Your task to perform on an android device: open the mobile data screen to see how much data has been used Image 0: 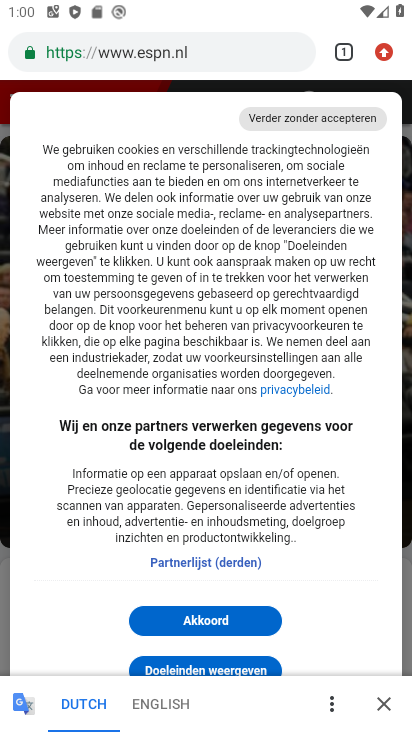
Step 0: press home button
Your task to perform on an android device: open the mobile data screen to see how much data has been used Image 1: 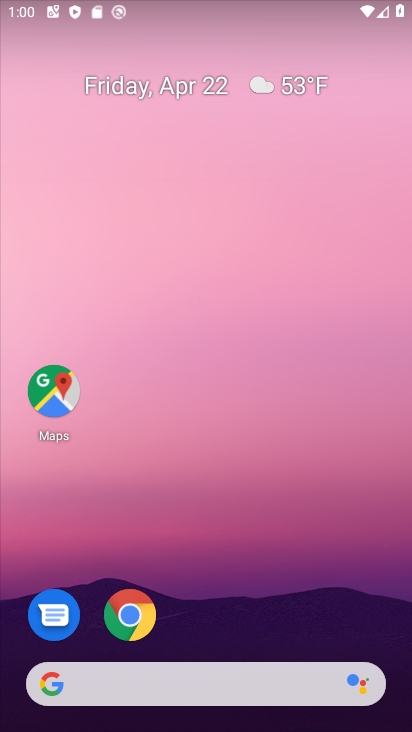
Step 1: drag from (332, 499) to (300, 11)
Your task to perform on an android device: open the mobile data screen to see how much data has been used Image 2: 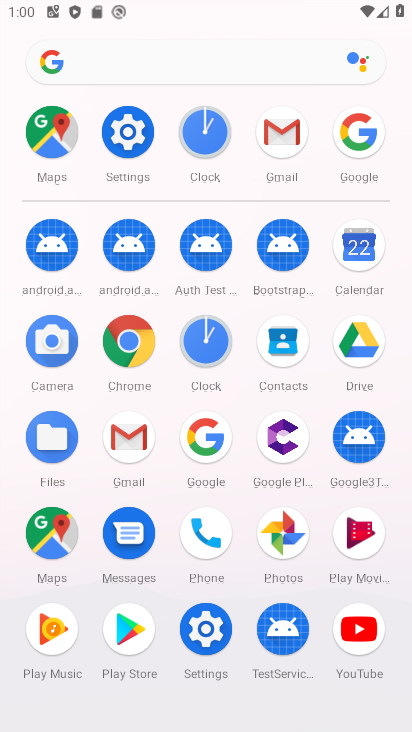
Step 2: click (133, 128)
Your task to perform on an android device: open the mobile data screen to see how much data has been used Image 3: 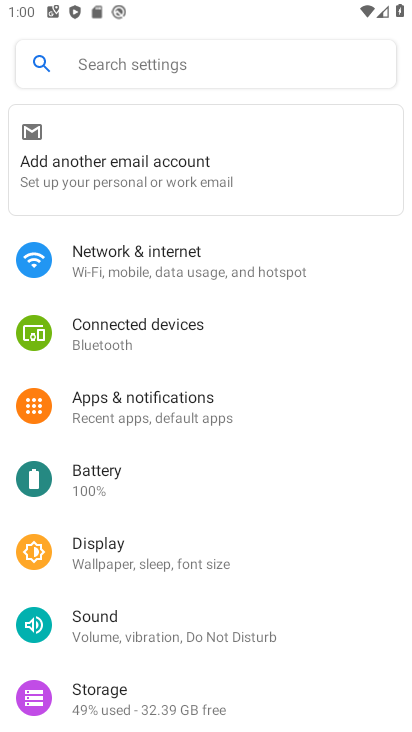
Step 3: click (185, 257)
Your task to perform on an android device: open the mobile data screen to see how much data has been used Image 4: 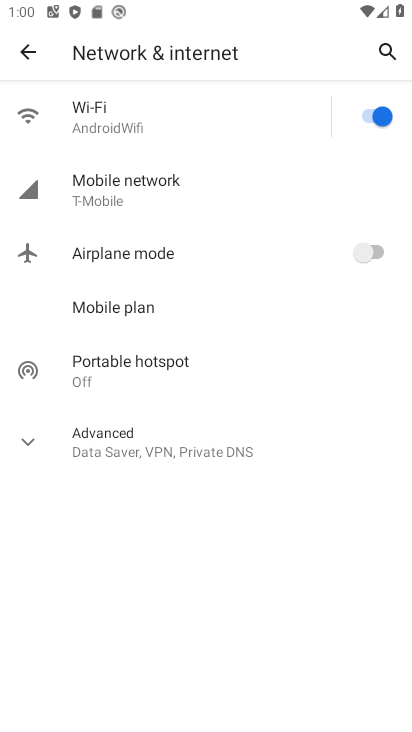
Step 4: click (109, 200)
Your task to perform on an android device: open the mobile data screen to see how much data has been used Image 5: 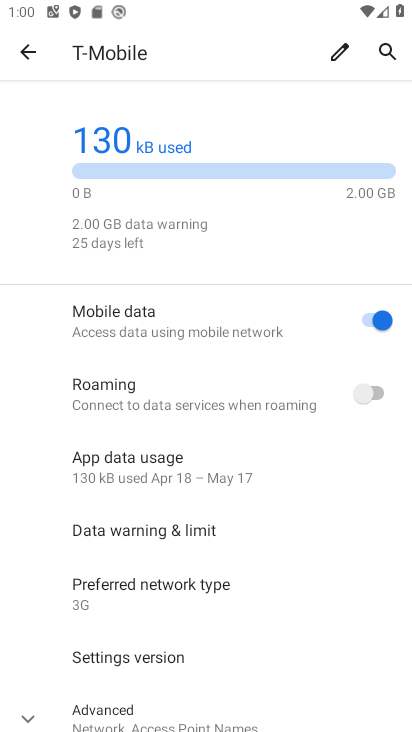
Step 5: click (132, 472)
Your task to perform on an android device: open the mobile data screen to see how much data has been used Image 6: 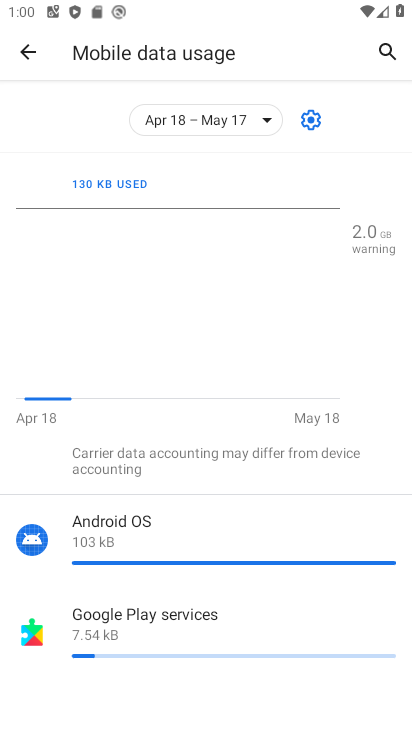
Step 6: task complete